Your task to perform on an android device: Go to calendar. Show me events next week Image 0: 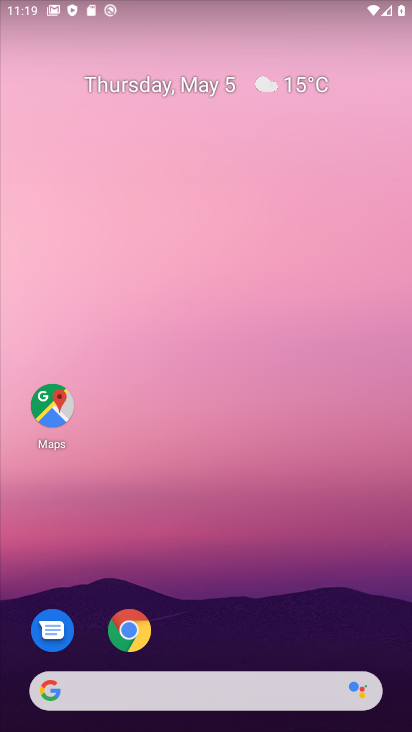
Step 0: drag from (267, 593) to (376, 269)
Your task to perform on an android device: Go to calendar. Show me events next week Image 1: 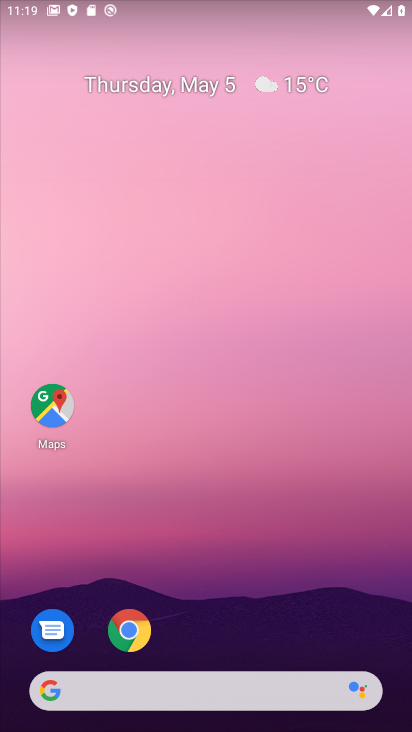
Step 1: drag from (306, 622) to (312, 87)
Your task to perform on an android device: Go to calendar. Show me events next week Image 2: 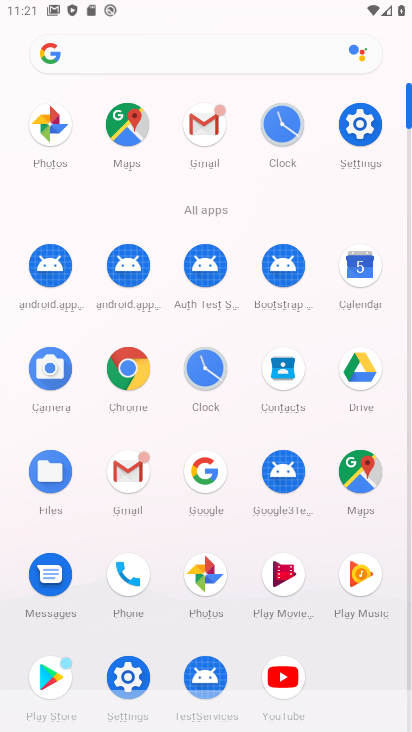
Step 2: click (352, 273)
Your task to perform on an android device: Go to calendar. Show me events next week Image 3: 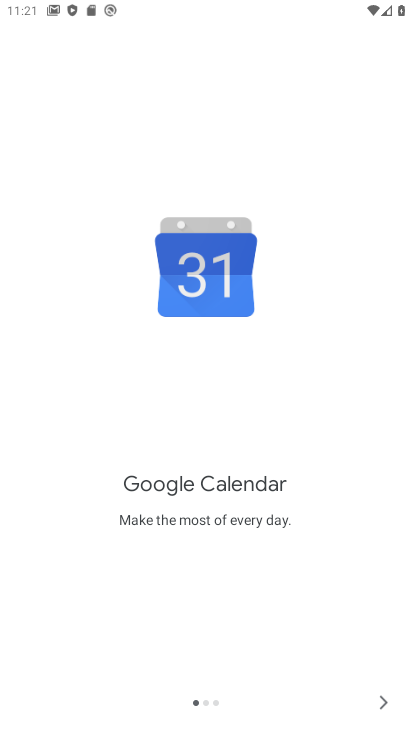
Step 3: click (378, 713)
Your task to perform on an android device: Go to calendar. Show me events next week Image 4: 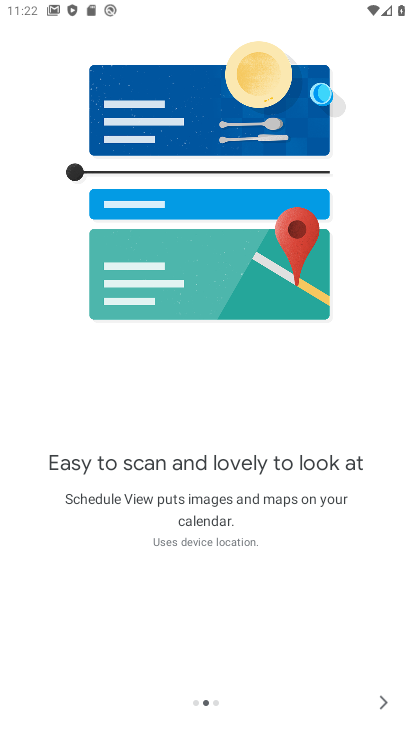
Step 4: click (381, 717)
Your task to perform on an android device: Go to calendar. Show me events next week Image 5: 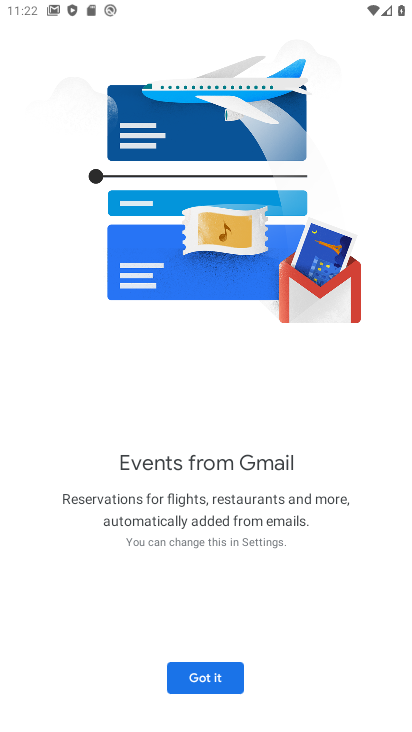
Step 5: click (170, 675)
Your task to perform on an android device: Go to calendar. Show me events next week Image 6: 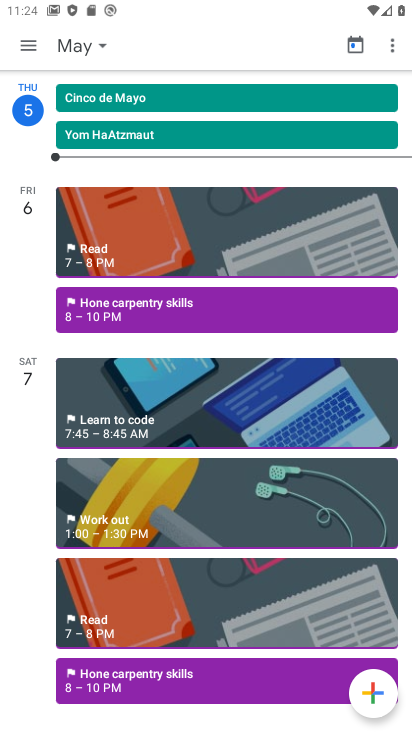
Step 6: click (99, 34)
Your task to perform on an android device: Go to calendar. Show me events next week Image 7: 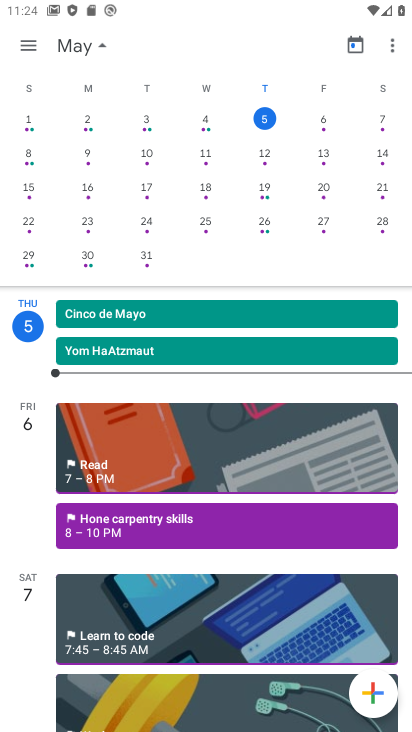
Step 7: click (258, 147)
Your task to perform on an android device: Go to calendar. Show me events next week Image 8: 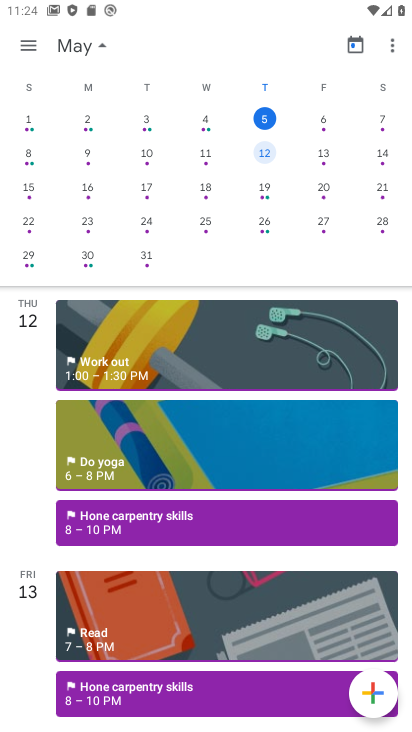
Step 8: task complete